Your task to perform on an android device: Go to eBay Image 0: 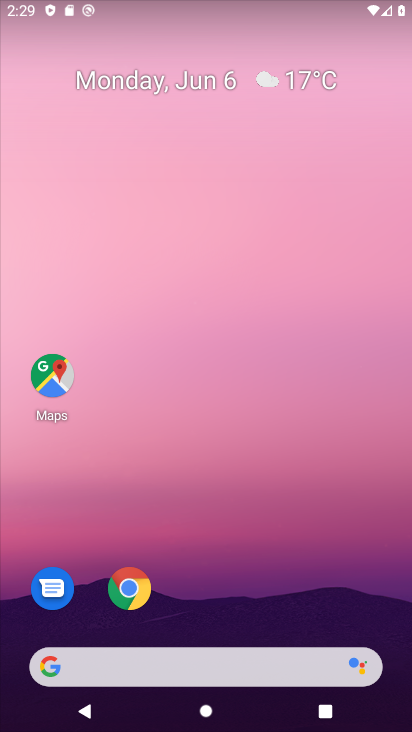
Step 0: drag from (1, 280) to (399, 245)
Your task to perform on an android device: Go to eBay Image 1: 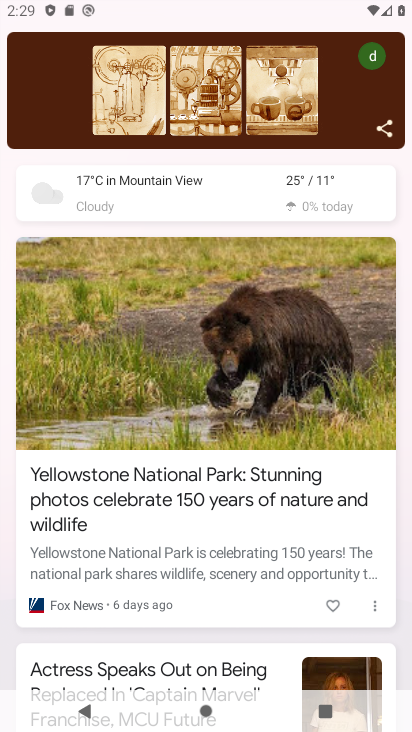
Step 1: press home button
Your task to perform on an android device: Go to eBay Image 2: 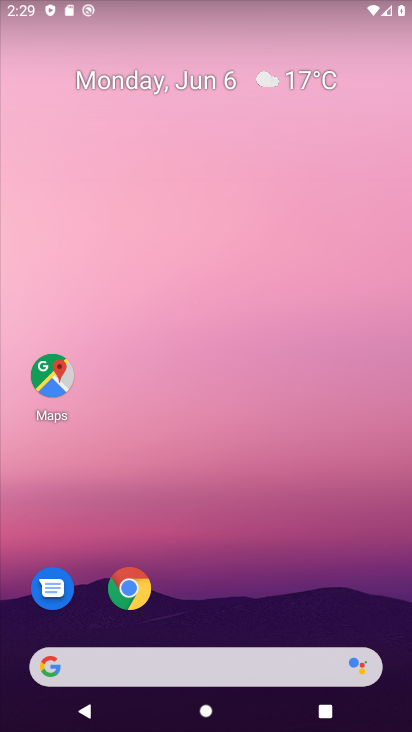
Step 2: click (140, 603)
Your task to perform on an android device: Go to eBay Image 3: 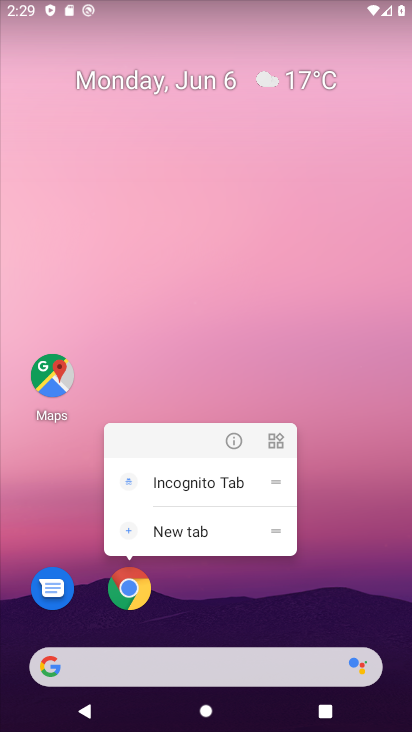
Step 3: click (140, 603)
Your task to perform on an android device: Go to eBay Image 4: 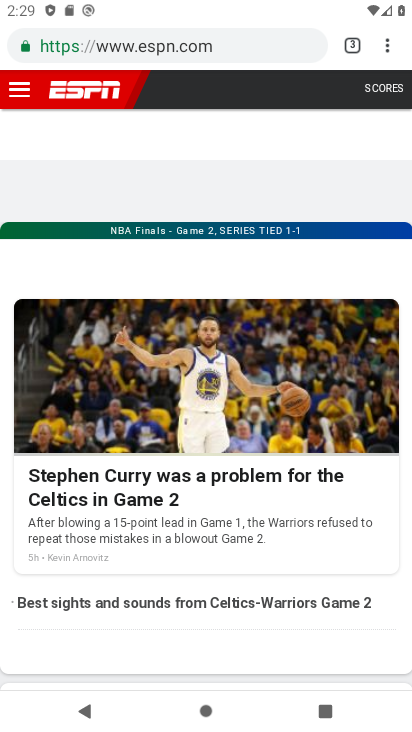
Step 4: click (218, 53)
Your task to perform on an android device: Go to eBay Image 5: 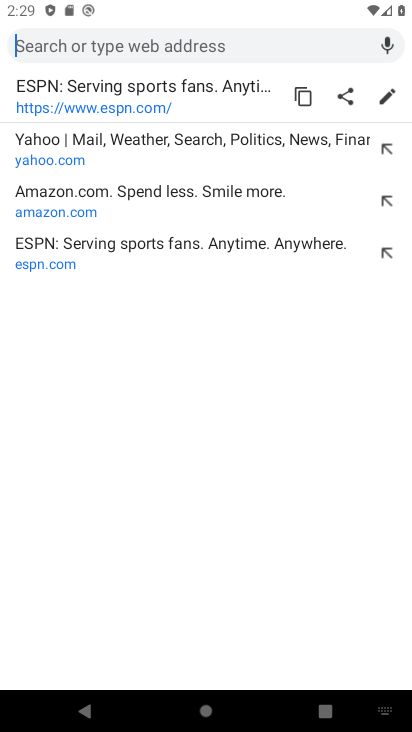
Step 5: type "ebay"
Your task to perform on an android device: Go to eBay Image 6: 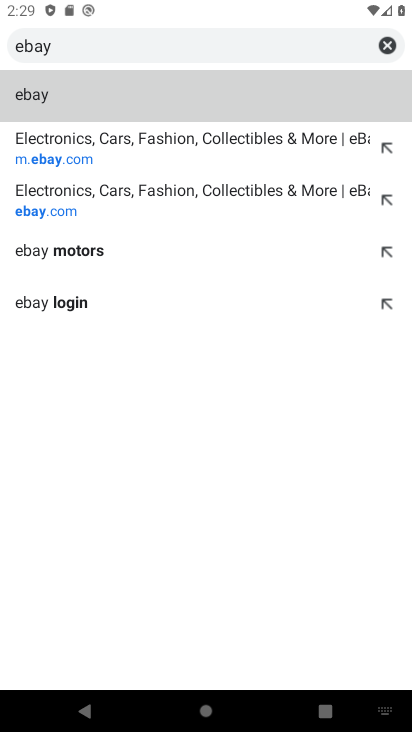
Step 6: click (134, 188)
Your task to perform on an android device: Go to eBay Image 7: 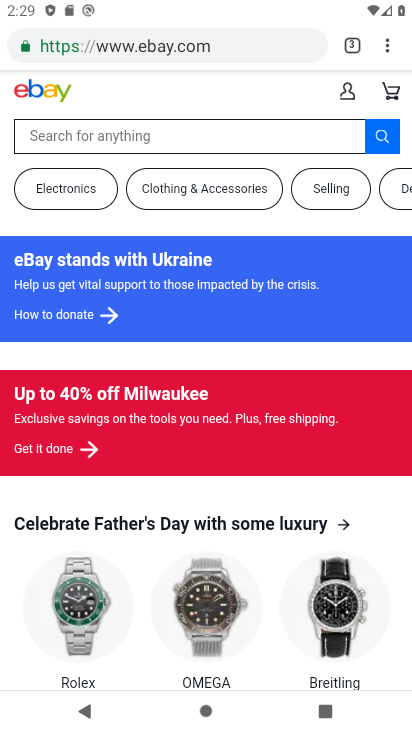
Step 7: task complete